Your task to perform on an android device: open app "Adobe Express: Graphic Design" Image 0: 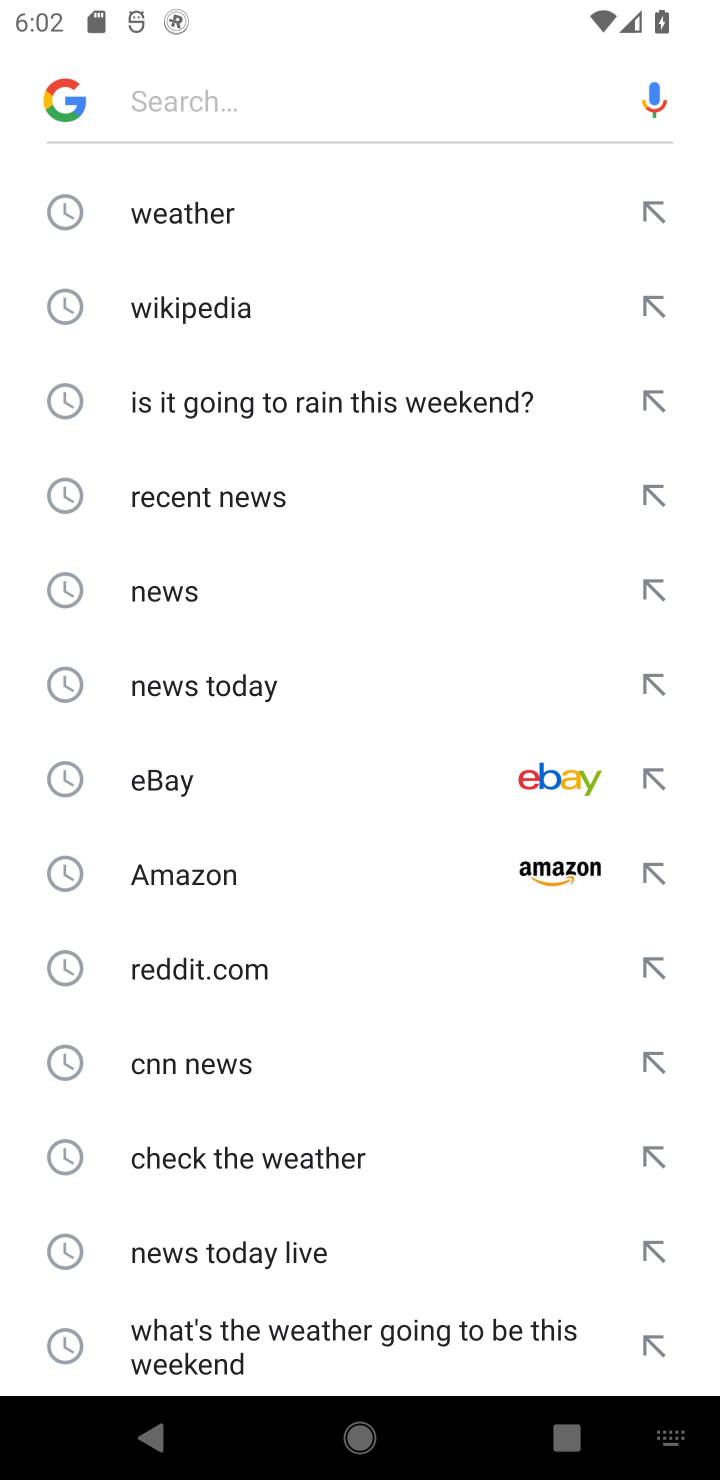
Step 0: press home button
Your task to perform on an android device: open app "Adobe Express: Graphic Design" Image 1: 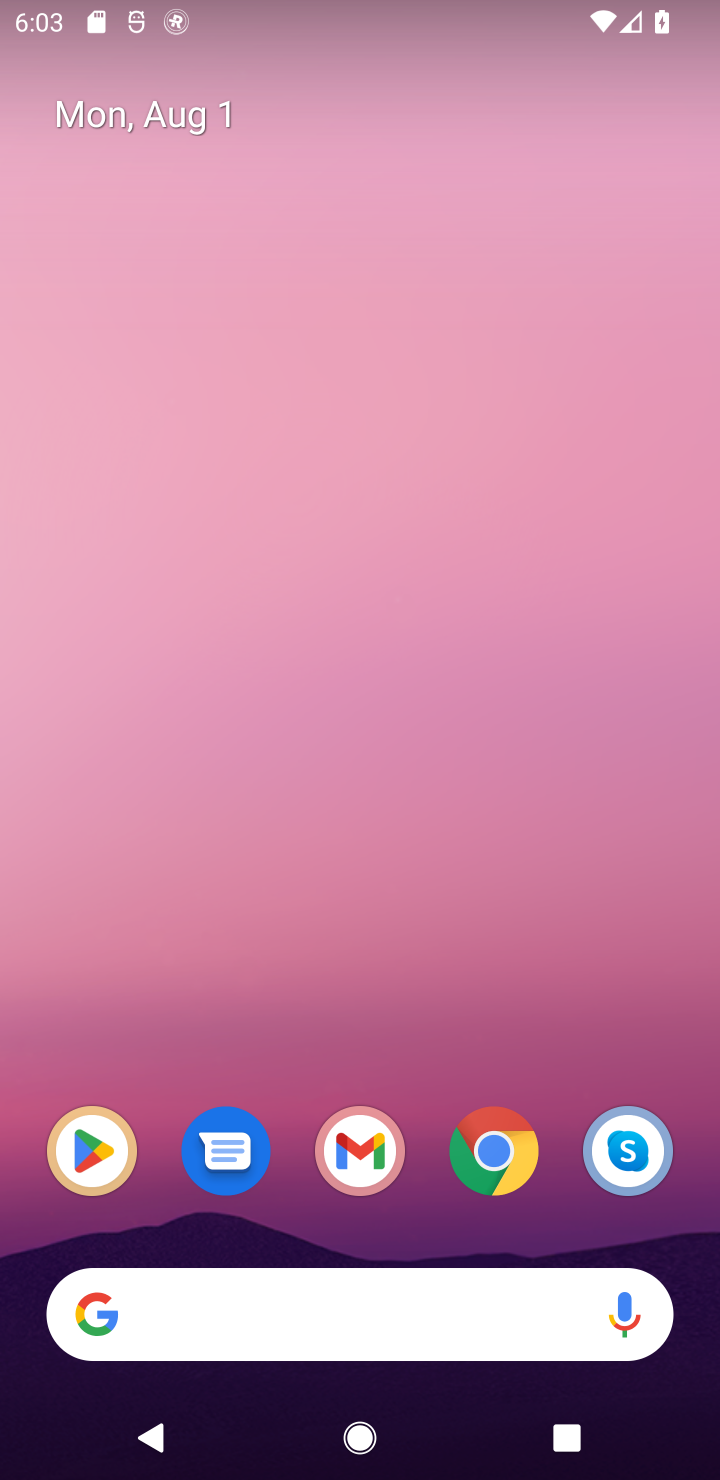
Step 1: click (93, 1159)
Your task to perform on an android device: open app "Adobe Express: Graphic Design" Image 2: 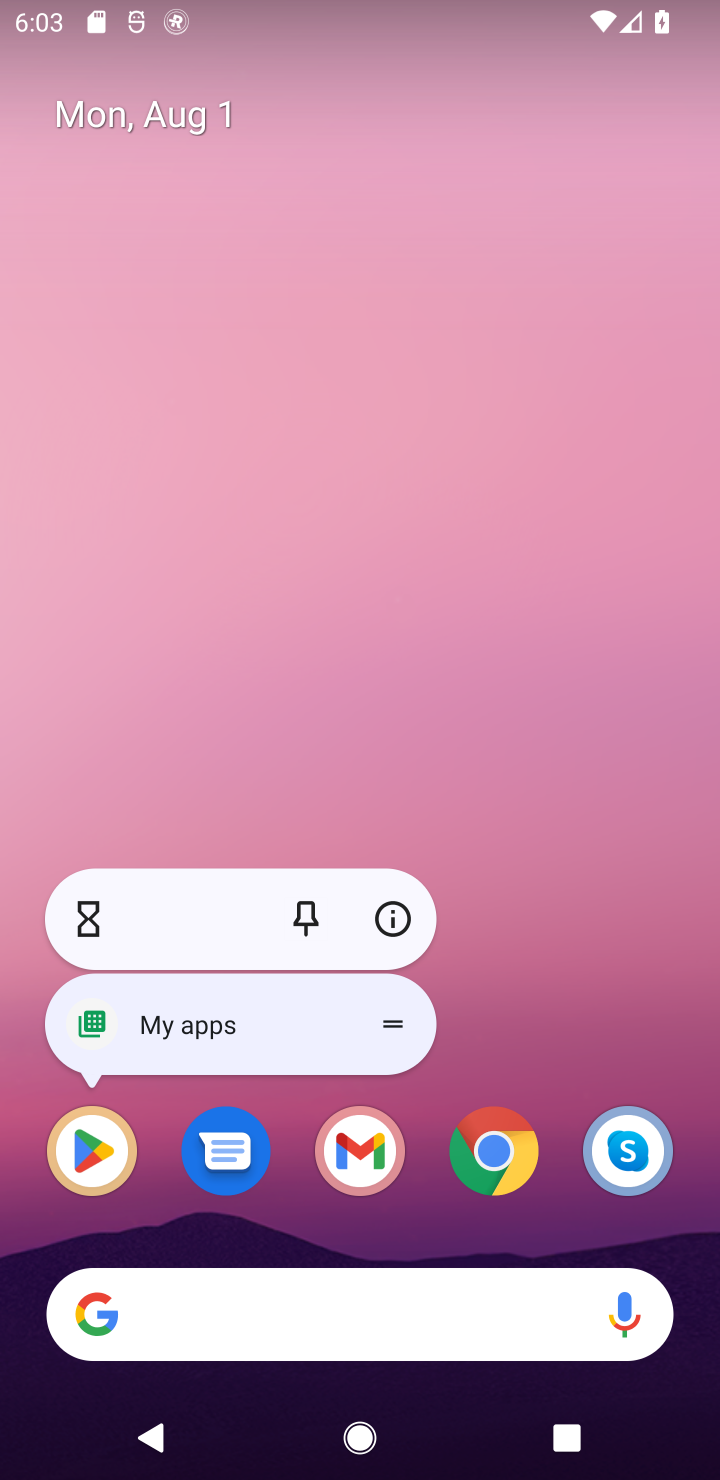
Step 2: click (93, 1159)
Your task to perform on an android device: open app "Adobe Express: Graphic Design" Image 3: 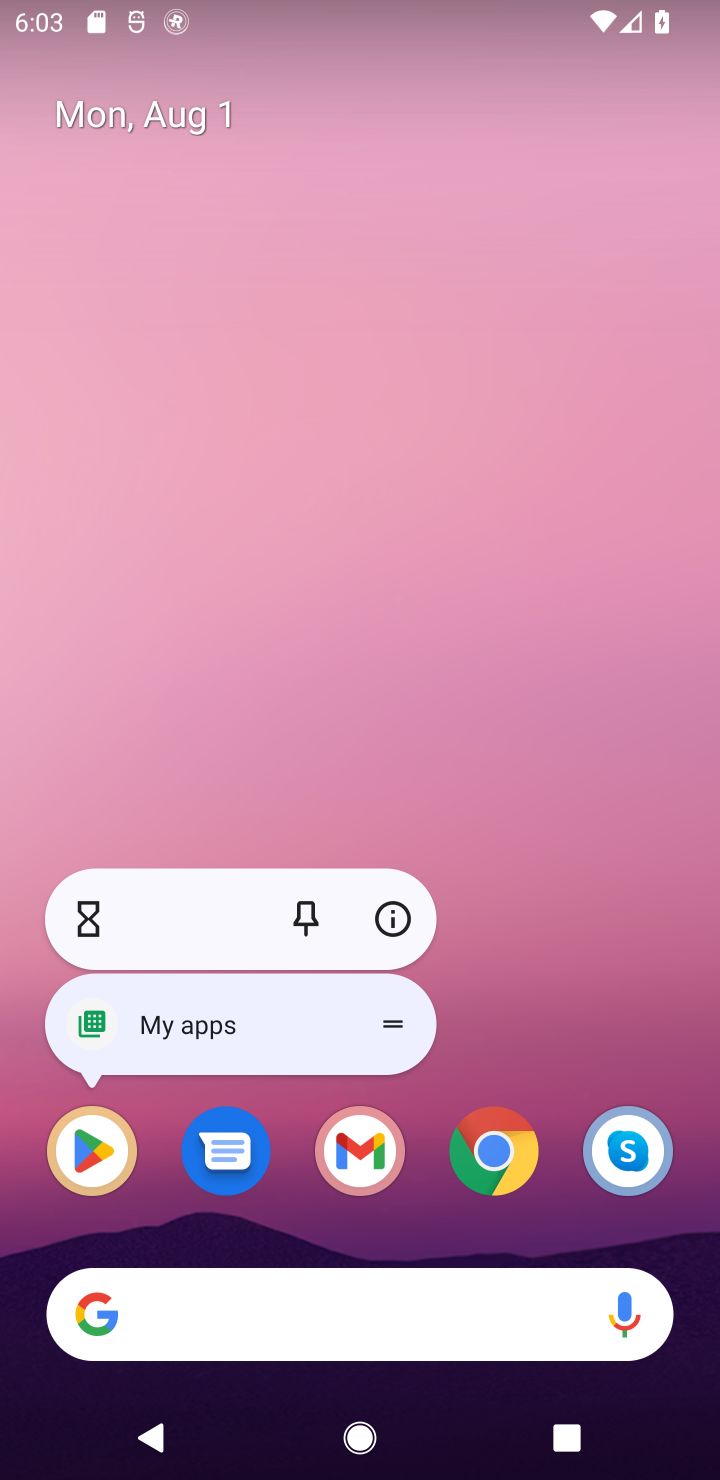
Step 3: click (93, 1159)
Your task to perform on an android device: open app "Adobe Express: Graphic Design" Image 4: 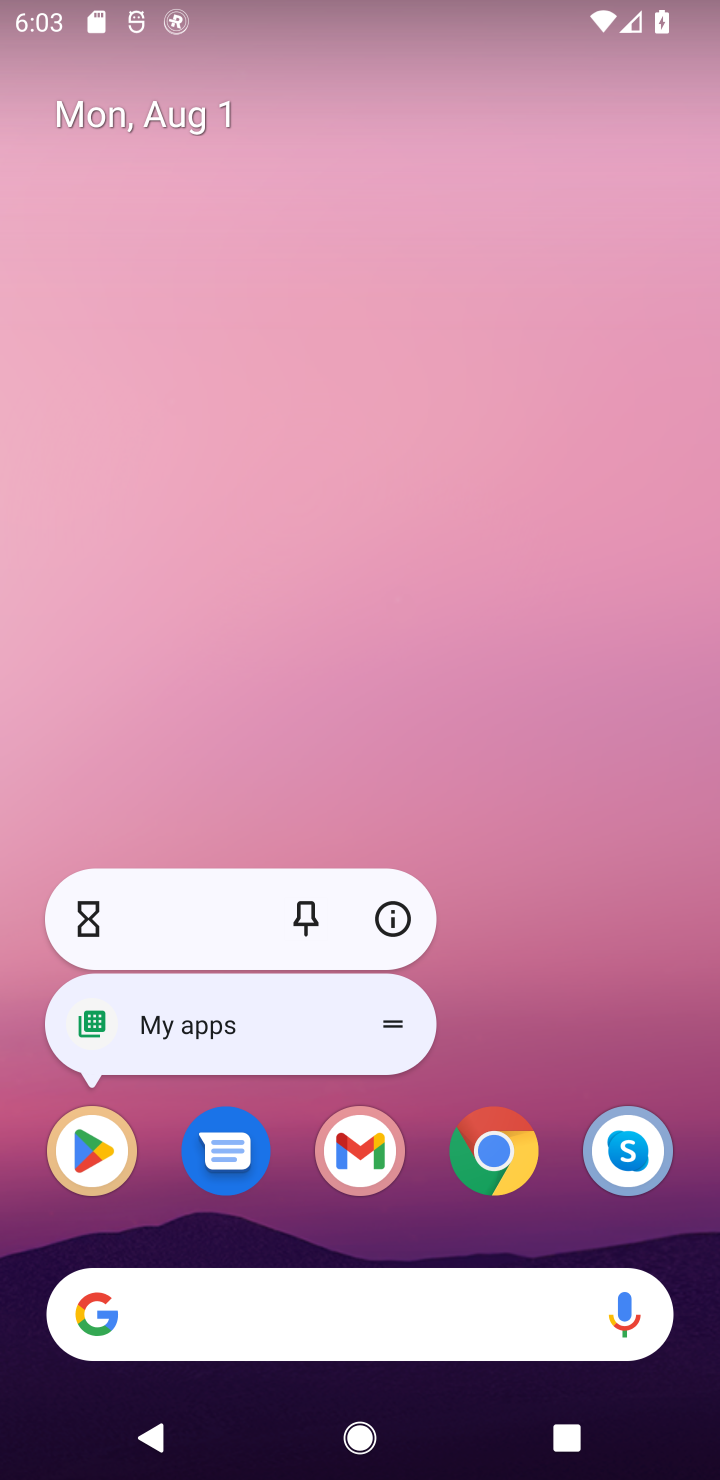
Step 4: click (93, 1159)
Your task to perform on an android device: open app "Adobe Express: Graphic Design" Image 5: 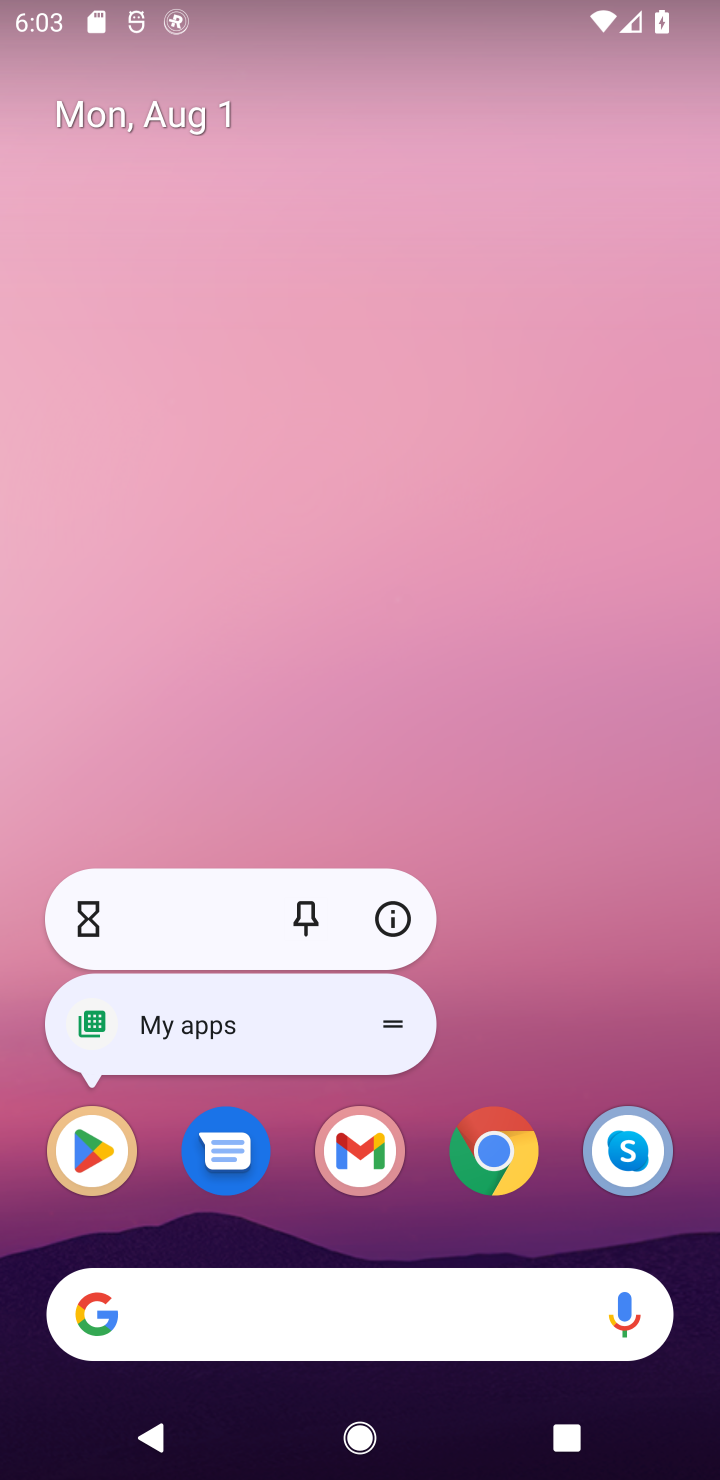
Step 5: click (93, 1159)
Your task to perform on an android device: open app "Adobe Express: Graphic Design" Image 6: 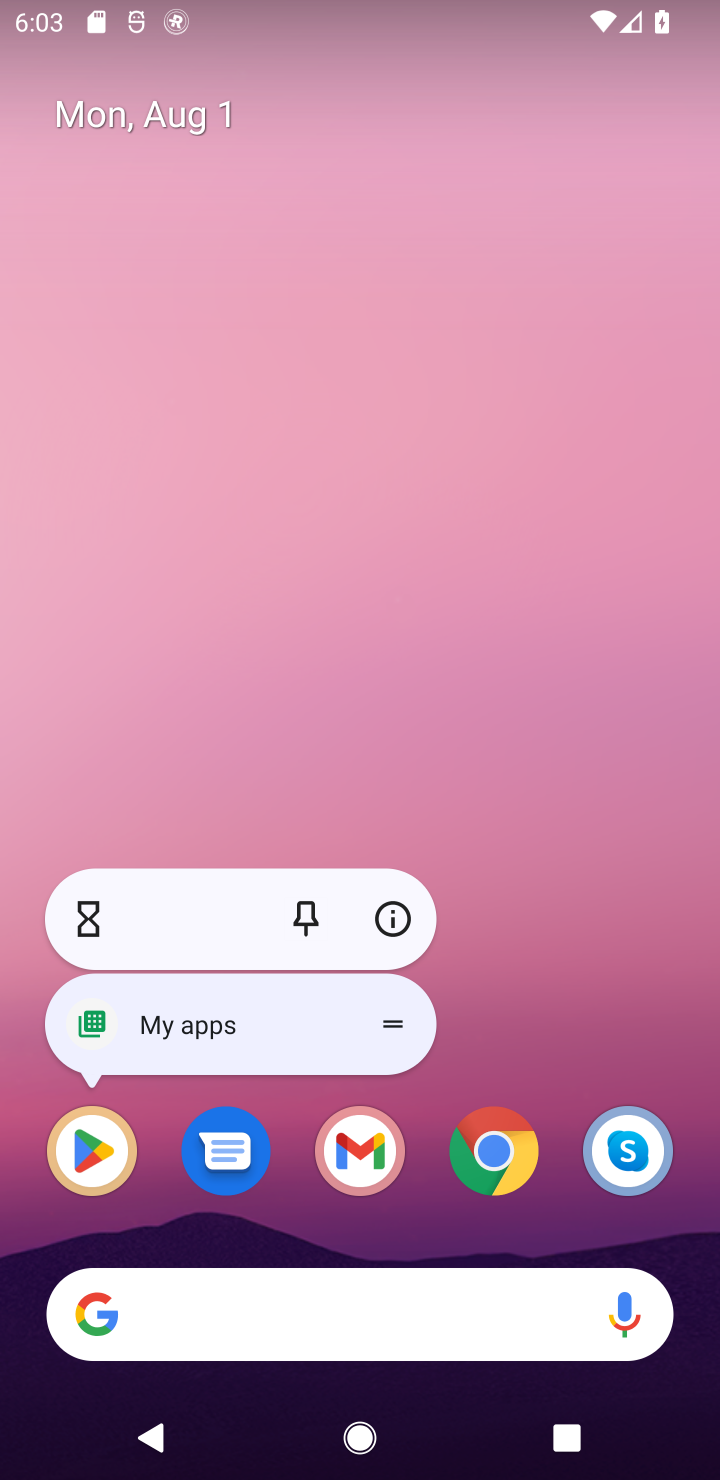
Step 6: click (93, 1159)
Your task to perform on an android device: open app "Adobe Express: Graphic Design" Image 7: 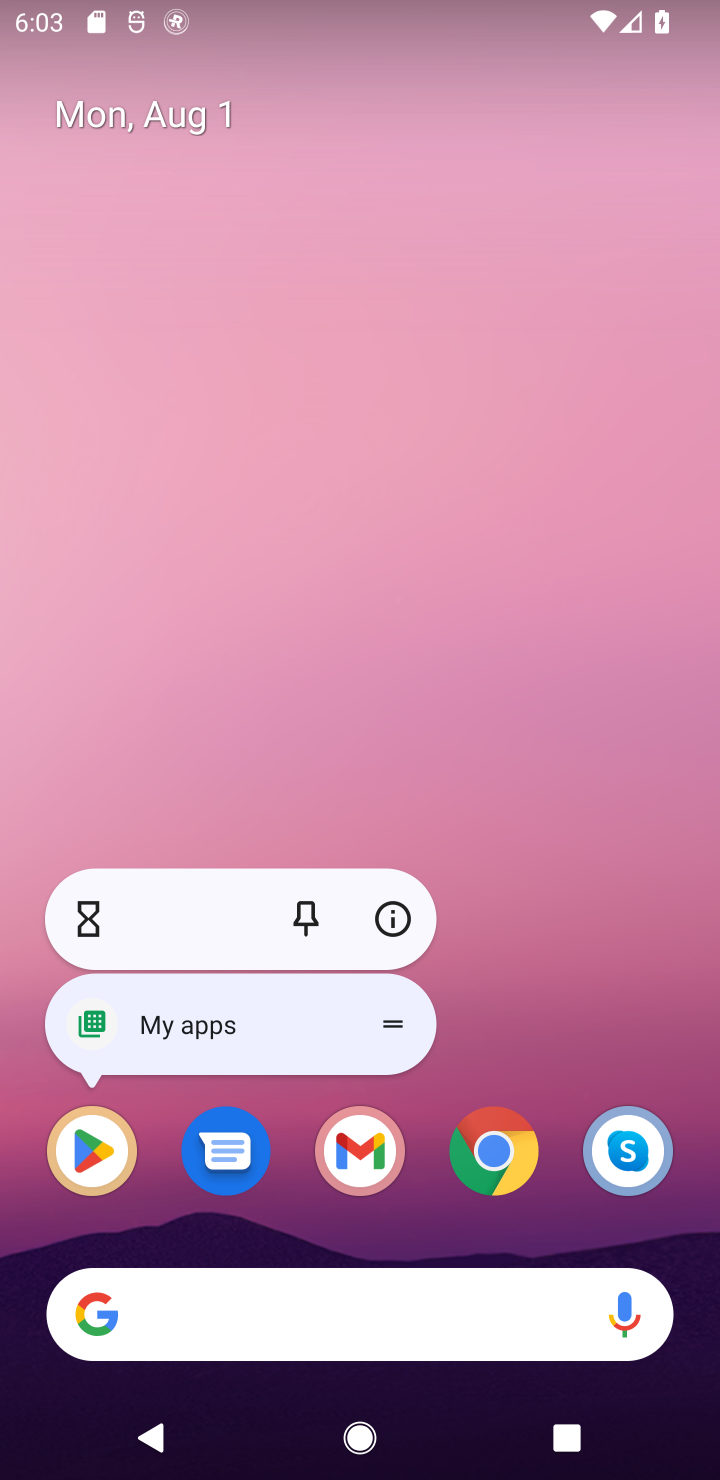
Step 7: click (93, 1158)
Your task to perform on an android device: open app "Adobe Express: Graphic Design" Image 8: 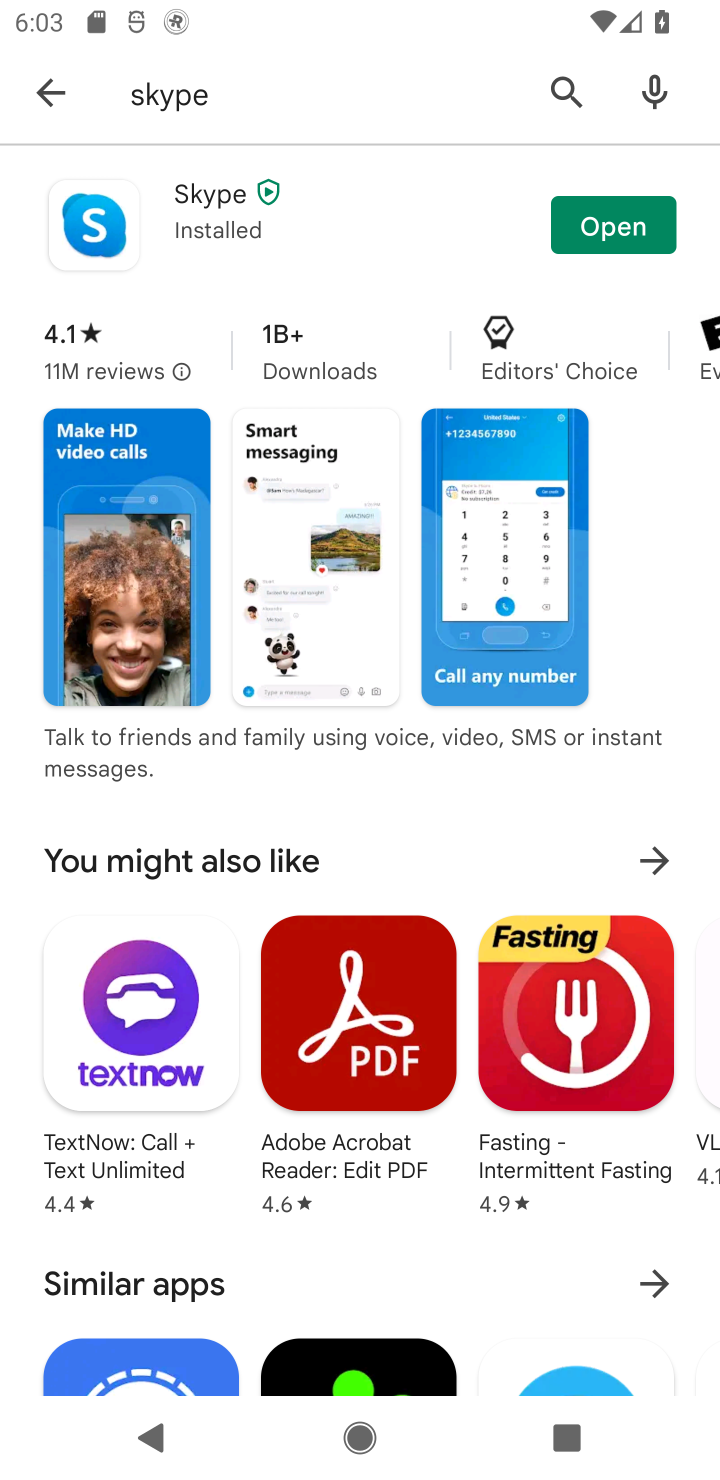
Step 8: click (559, 99)
Your task to perform on an android device: open app "Adobe Express: Graphic Design" Image 9: 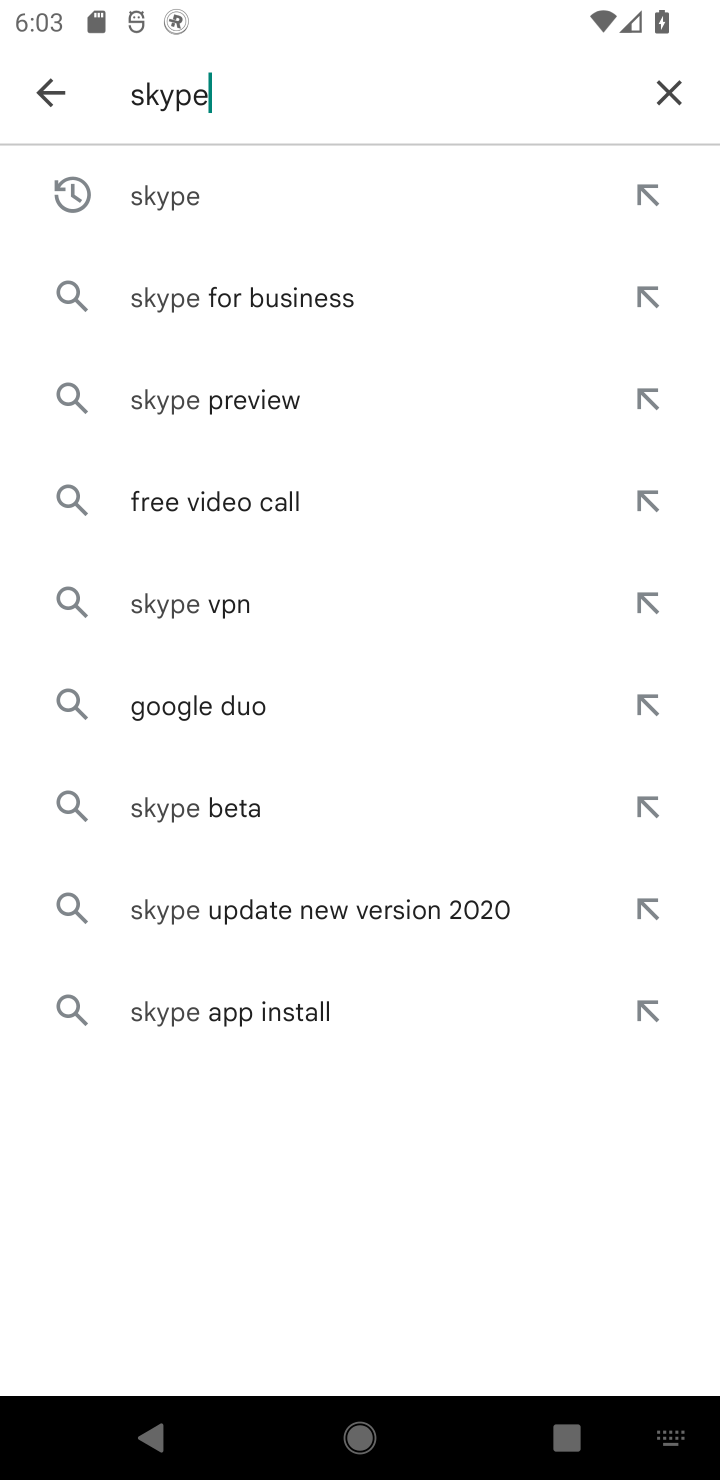
Step 9: click (654, 92)
Your task to perform on an android device: open app "Adobe Express: Graphic Design" Image 10: 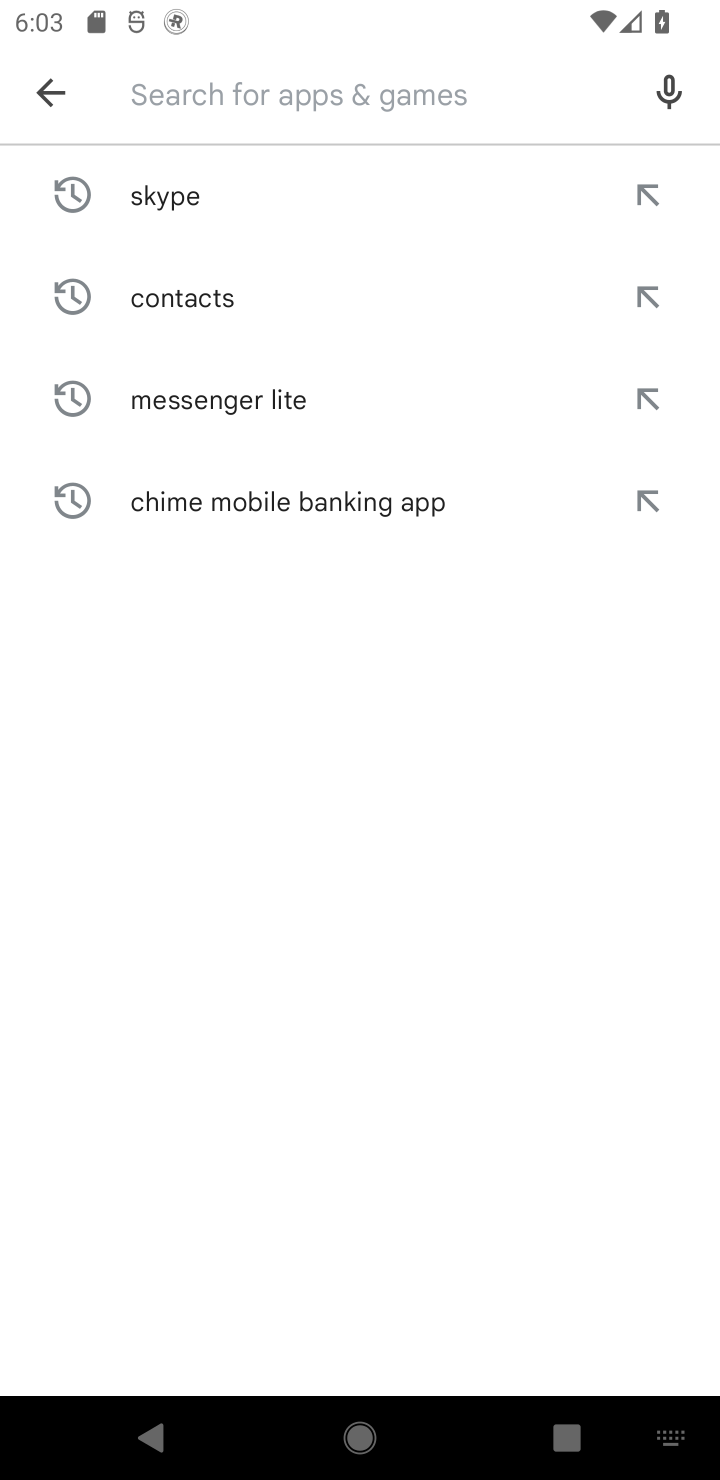
Step 10: type "Adobe Express: Graphic Design"
Your task to perform on an android device: open app "Adobe Express: Graphic Design" Image 11: 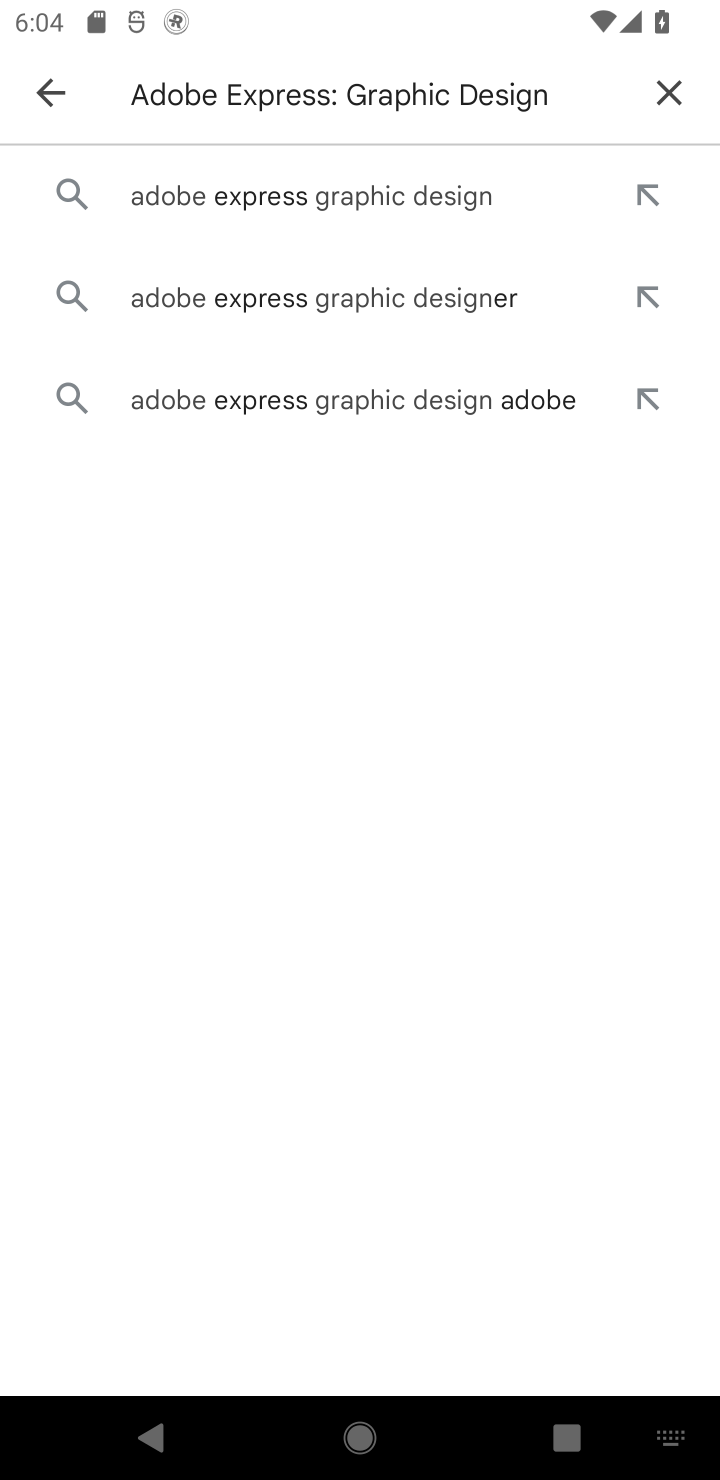
Step 11: click (251, 221)
Your task to perform on an android device: open app "Adobe Express: Graphic Design" Image 12: 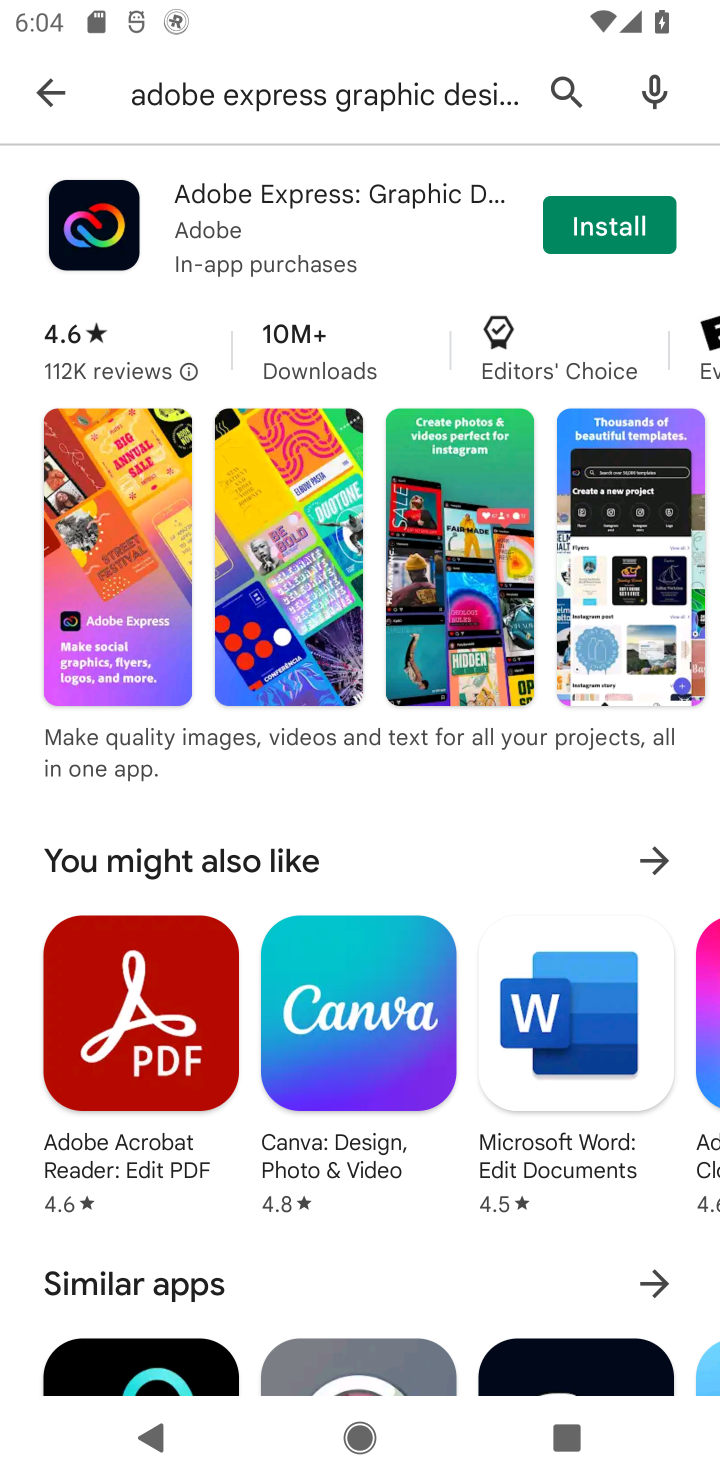
Step 12: task complete